Your task to perform on an android device: Go to calendar. Show me events next week Image 0: 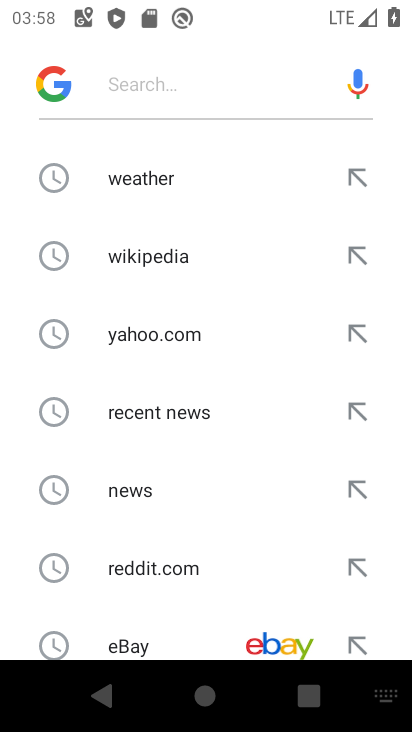
Step 0: press home button
Your task to perform on an android device: Go to calendar. Show me events next week Image 1: 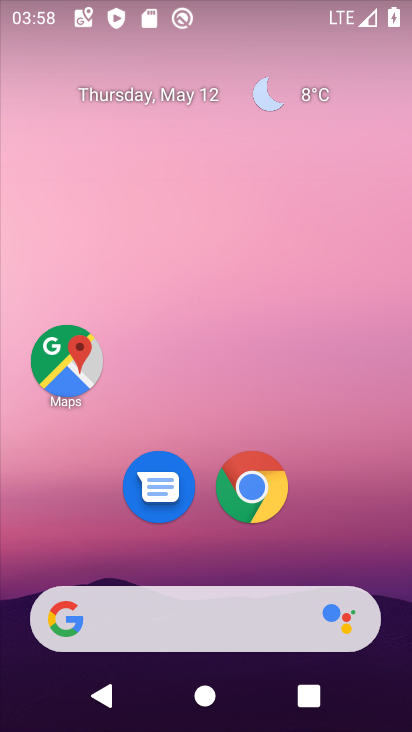
Step 1: drag from (344, 538) to (316, 153)
Your task to perform on an android device: Go to calendar. Show me events next week Image 2: 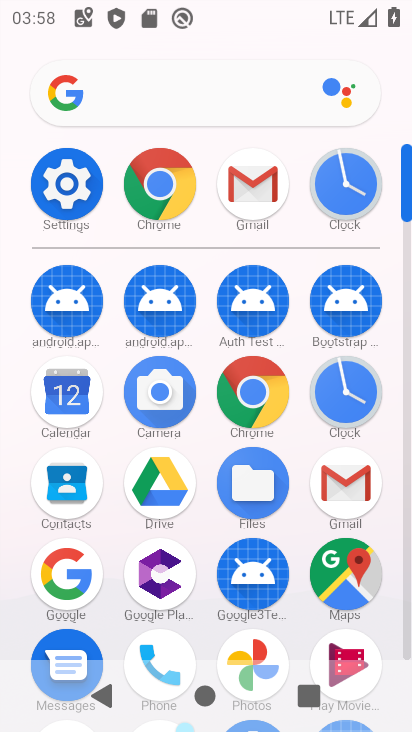
Step 2: click (61, 391)
Your task to perform on an android device: Go to calendar. Show me events next week Image 3: 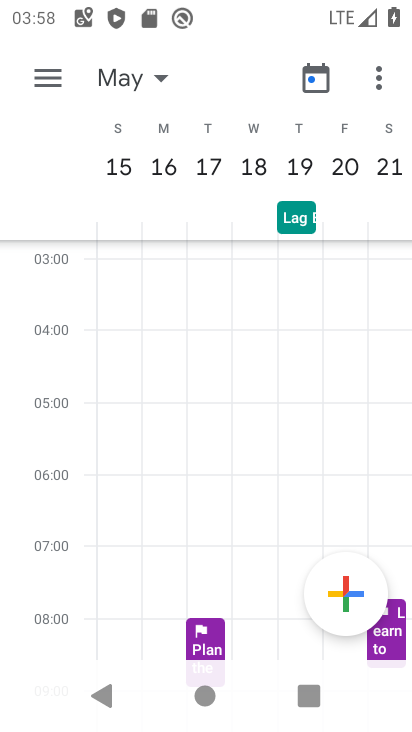
Step 3: click (51, 76)
Your task to perform on an android device: Go to calendar. Show me events next week Image 4: 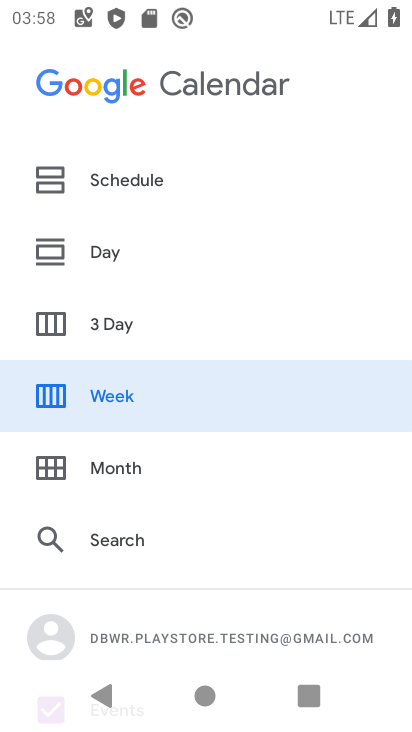
Step 4: click (131, 392)
Your task to perform on an android device: Go to calendar. Show me events next week Image 5: 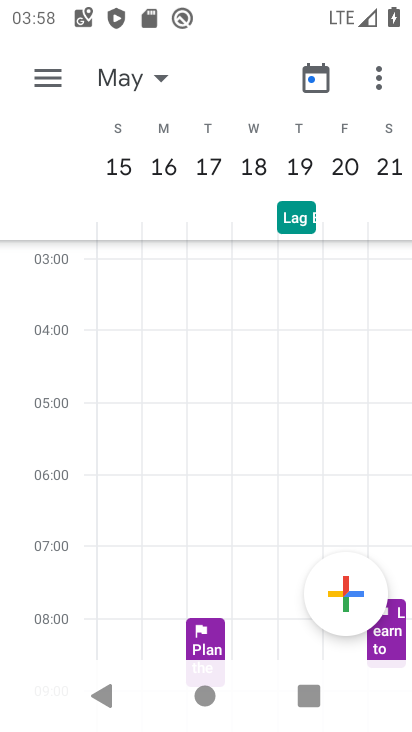
Step 5: task complete